Your task to perform on an android device: open the mobile data screen to see how much data has been used Image 0: 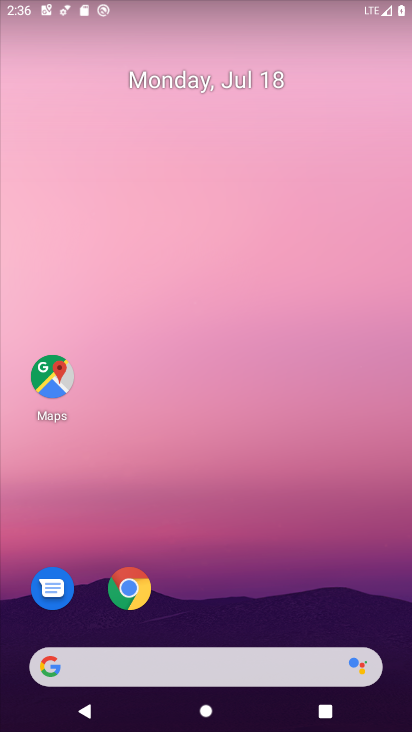
Step 0: drag from (346, 623) to (230, 62)
Your task to perform on an android device: open the mobile data screen to see how much data has been used Image 1: 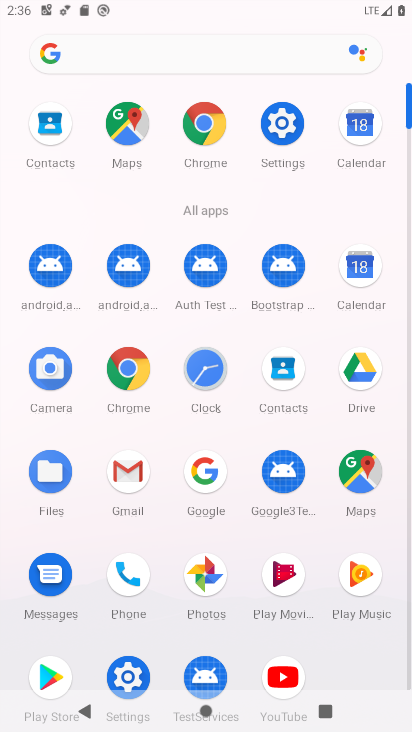
Step 1: click (288, 133)
Your task to perform on an android device: open the mobile data screen to see how much data has been used Image 2: 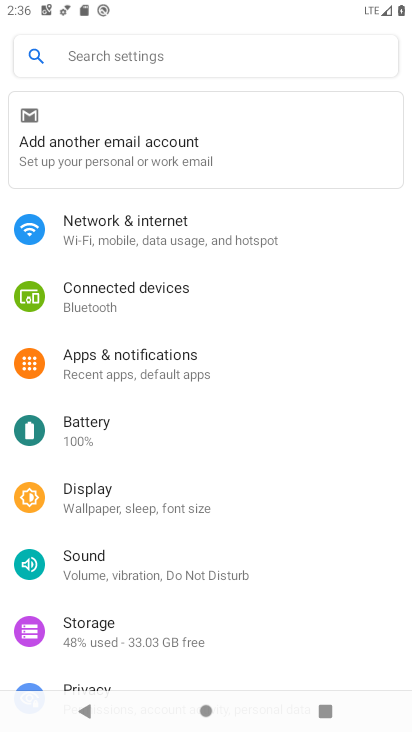
Step 2: click (153, 231)
Your task to perform on an android device: open the mobile data screen to see how much data has been used Image 3: 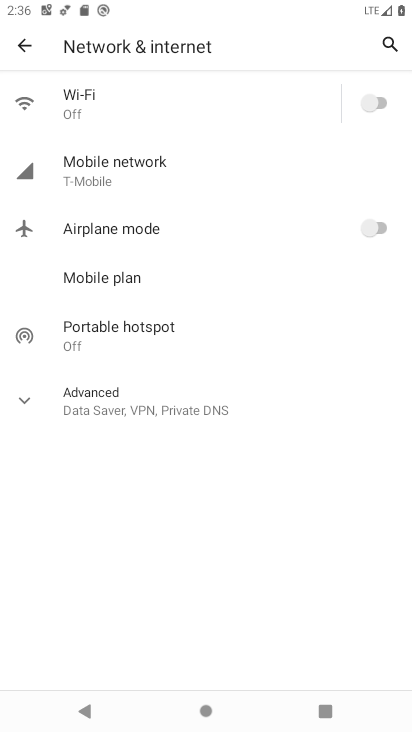
Step 3: click (134, 172)
Your task to perform on an android device: open the mobile data screen to see how much data has been used Image 4: 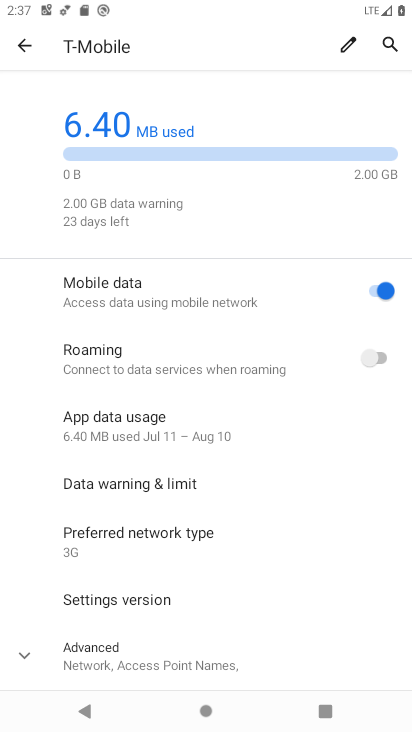
Step 4: task complete